Your task to perform on an android device: visit the assistant section in the google photos Image 0: 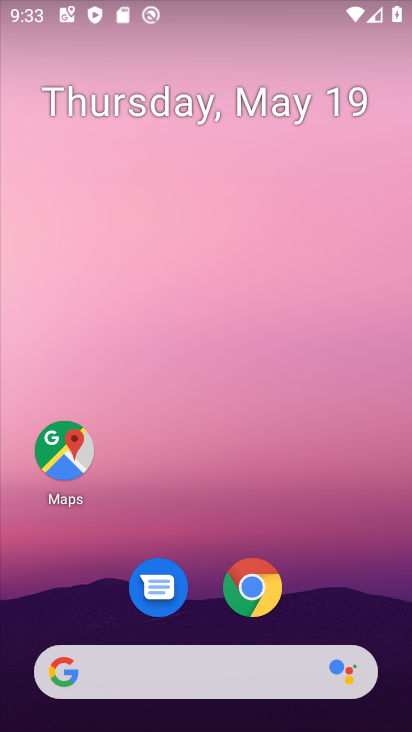
Step 0: drag from (215, 658) to (150, 95)
Your task to perform on an android device: visit the assistant section in the google photos Image 1: 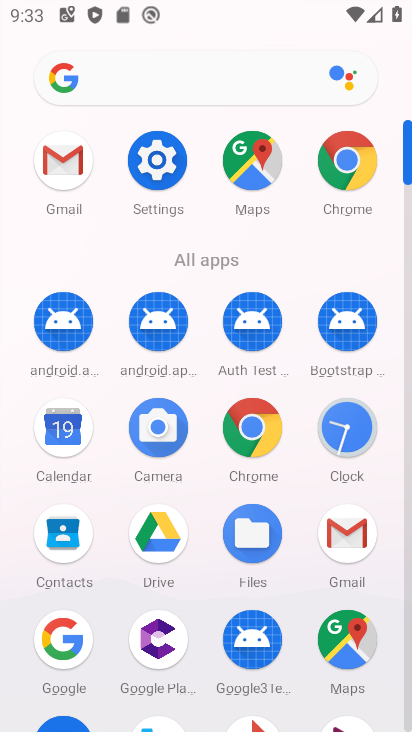
Step 1: drag from (159, 661) to (140, 282)
Your task to perform on an android device: visit the assistant section in the google photos Image 2: 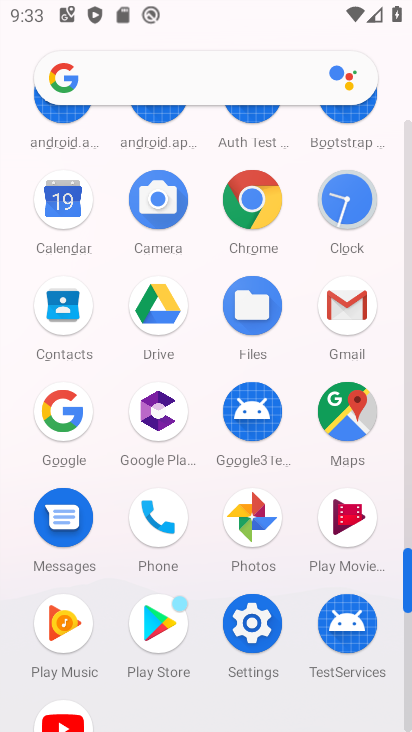
Step 2: click (242, 535)
Your task to perform on an android device: visit the assistant section in the google photos Image 3: 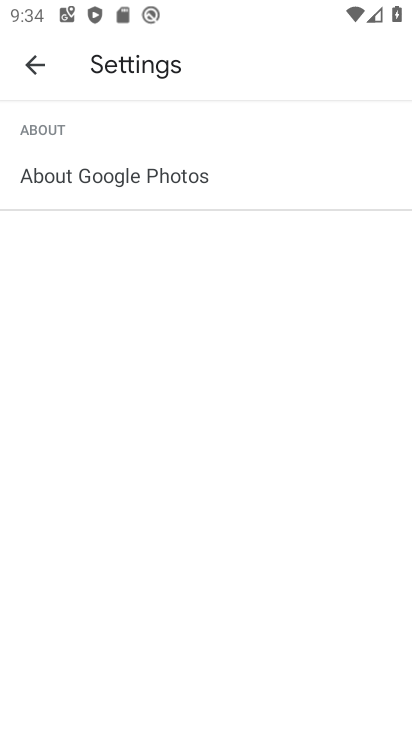
Step 3: click (33, 72)
Your task to perform on an android device: visit the assistant section in the google photos Image 4: 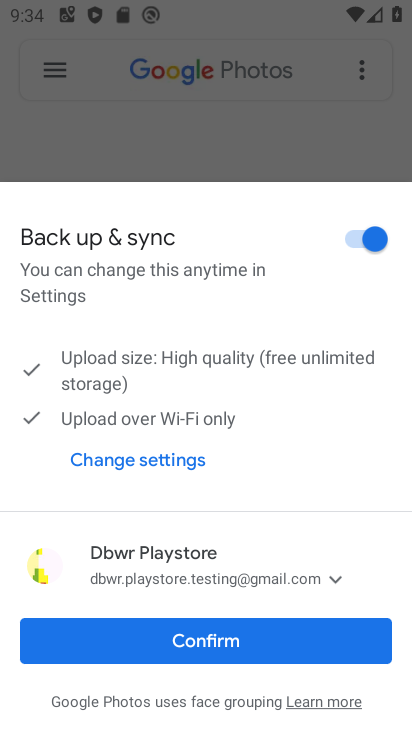
Step 4: click (189, 660)
Your task to perform on an android device: visit the assistant section in the google photos Image 5: 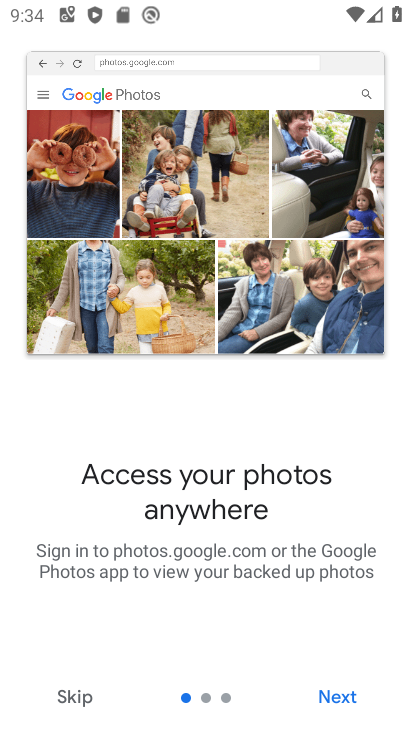
Step 5: click (78, 692)
Your task to perform on an android device: visit the assistant section in the google photos Image 6: 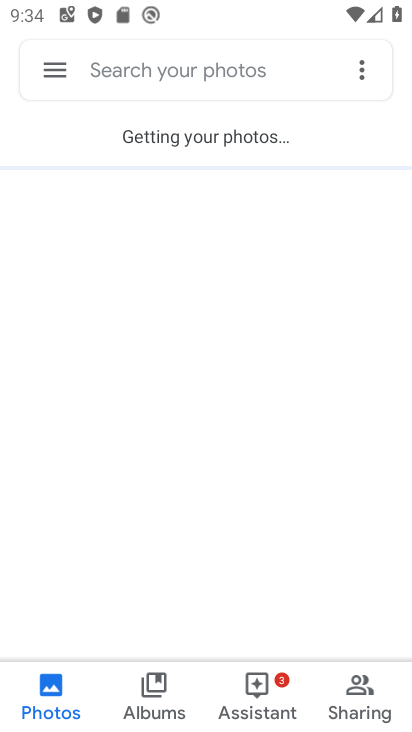
Step 6: click (267, 687)
Your task to perform on an android device: visit the assistant section in the google photos Image 7: 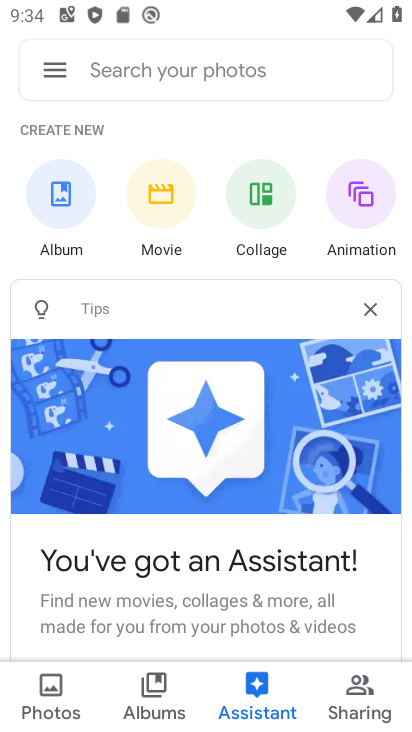
Step 7: task complete